Your task to perform on an android device: see creations saved in the google photos Image 0: 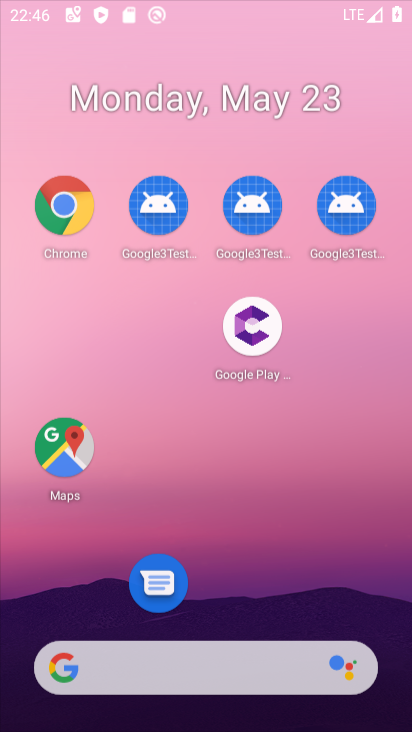
Step 0: click (236, 229)
Your task to perform on an android device: see creations saved in the google photos Image 1: 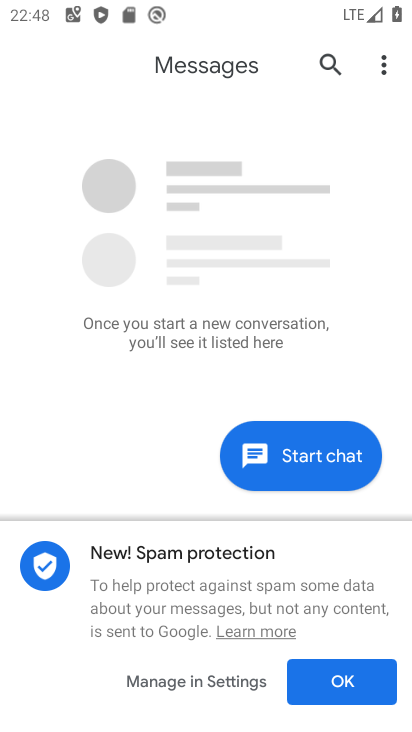
Step 1: drag from (216, 626) to (169, 257)
Your task to perform on an android device: see creations saved in the google photos Image 2: 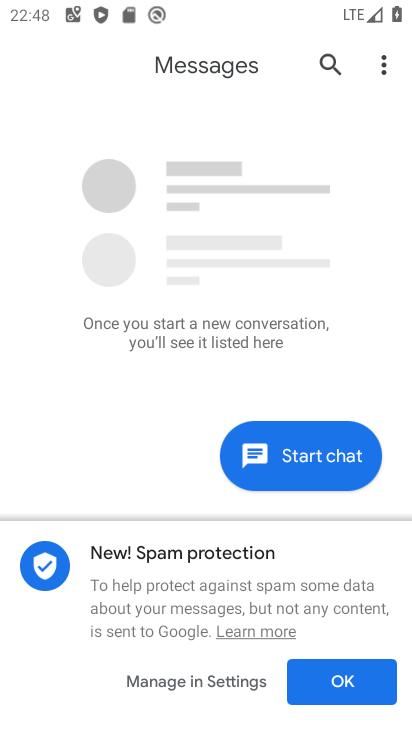
Step 2: press back button
Your task to perform on an android device: see creations saved in the google photos Image 3: 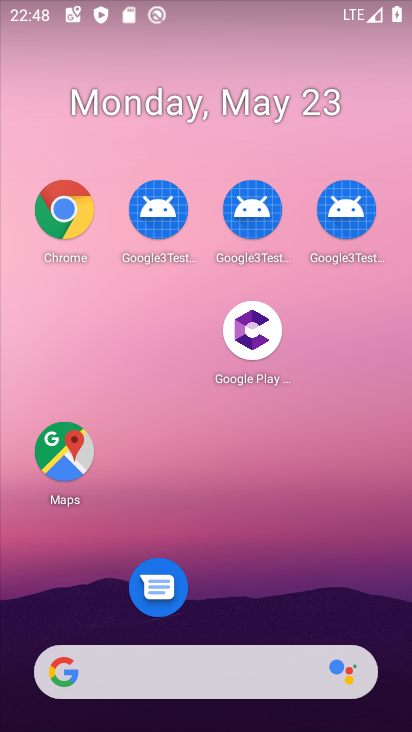
Step 3: drag from (231, 560) to (209, 72)
Your task to perform on an android device: see creations saved in the google photos Image 4: 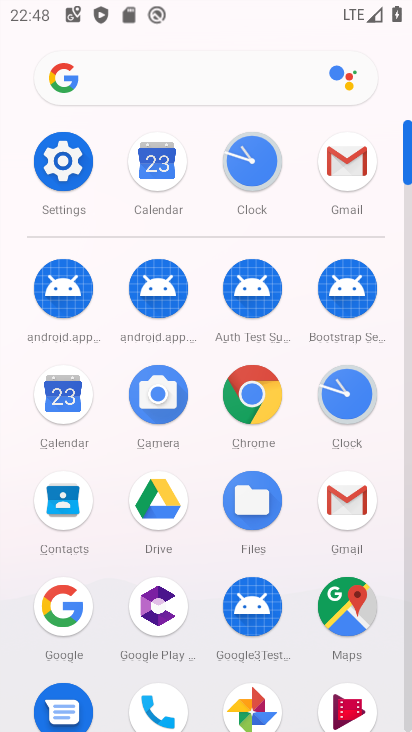
Step 4: click (254, 698)
Your task to perform on an android device: see creations saved in the google photos Image 5: 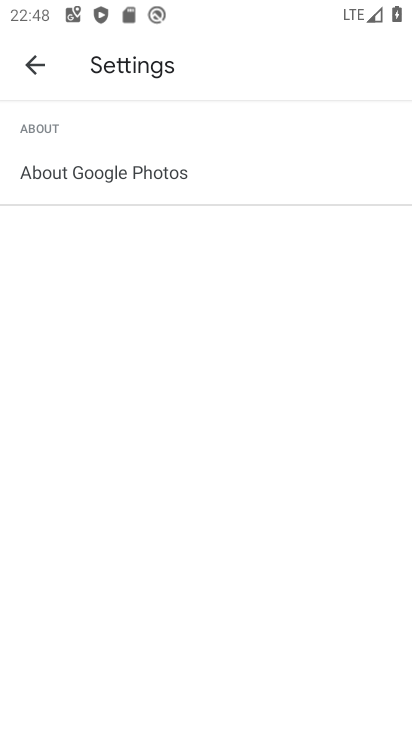
Step 5: task complete